Your task to perform on an android device: change the clock display to digital Image 0: 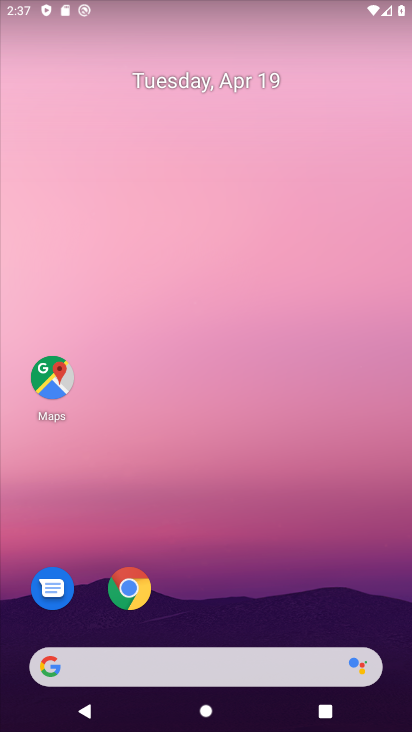
Step 0: drag from (239, 681) to (190, 311)
Your task to perform on an android device: change the clock display to digital Image 1: 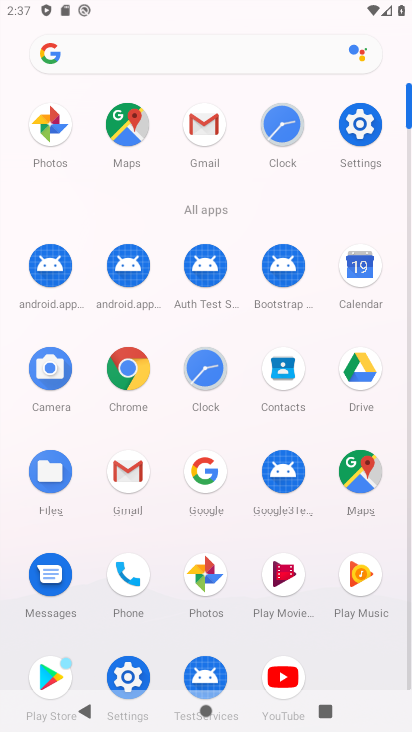
Step 1: click (275, 136)
Your task to perform on an android device: change the clock display to digital Image 2: 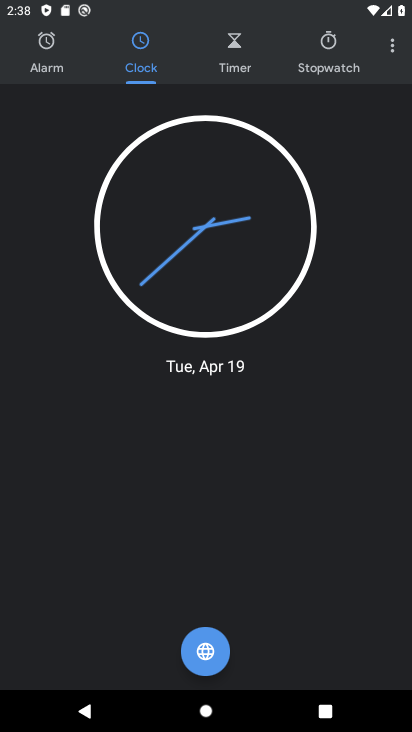
Step 2: click (390, 34)
Your task to perform on an android device: change the clock display to digital Image 3: 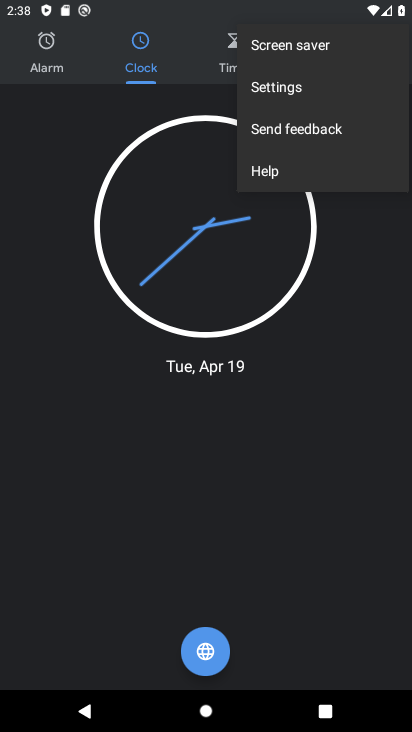
Step 3: click (277, 82)
Your task to perform on an android device: change the clock display to digital Image 4: 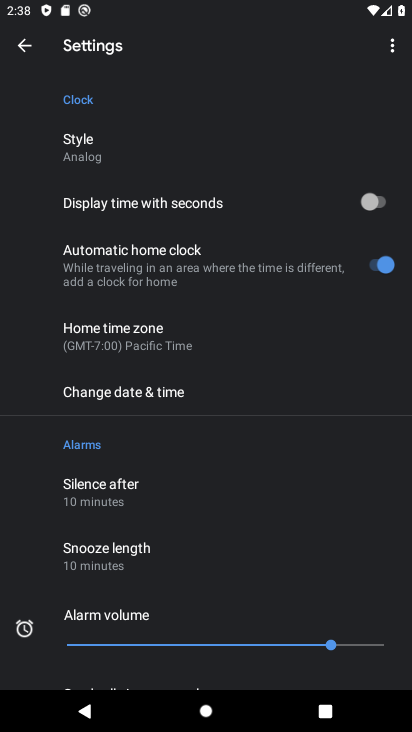
Step 4: click (81, 154)
Your task to perform on an android device: change the clock display to digital Image 5: 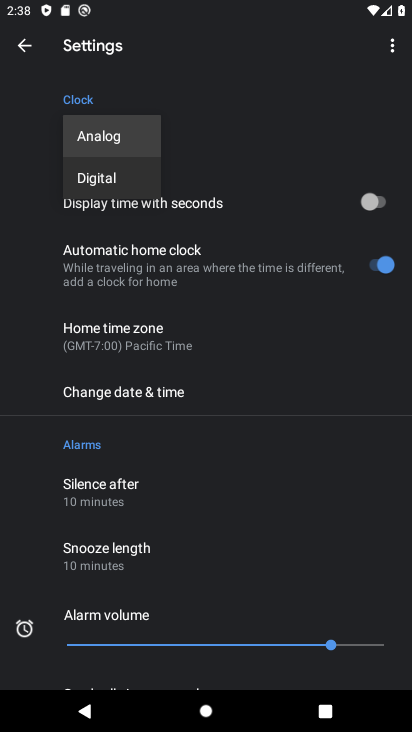
Step 5: click (92, 176)
Your task to perform on an android device: change the clock display to digital Image 6: 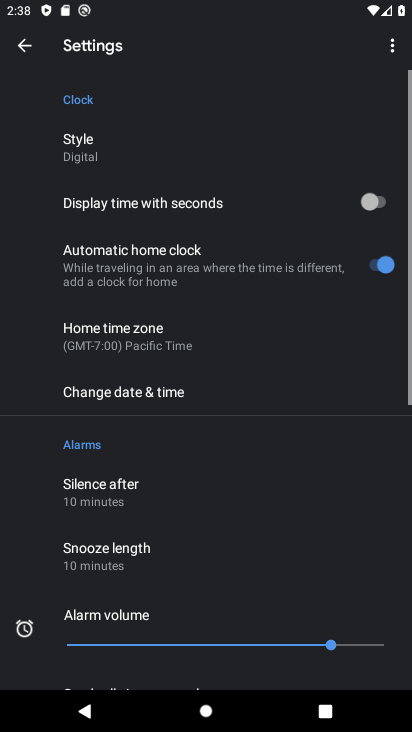
Step 6: task complete